Your task to perform on an android device: open app "Flipkart Online Shopping App" (install if not already installed), go to login, and select forgot password Image 0: 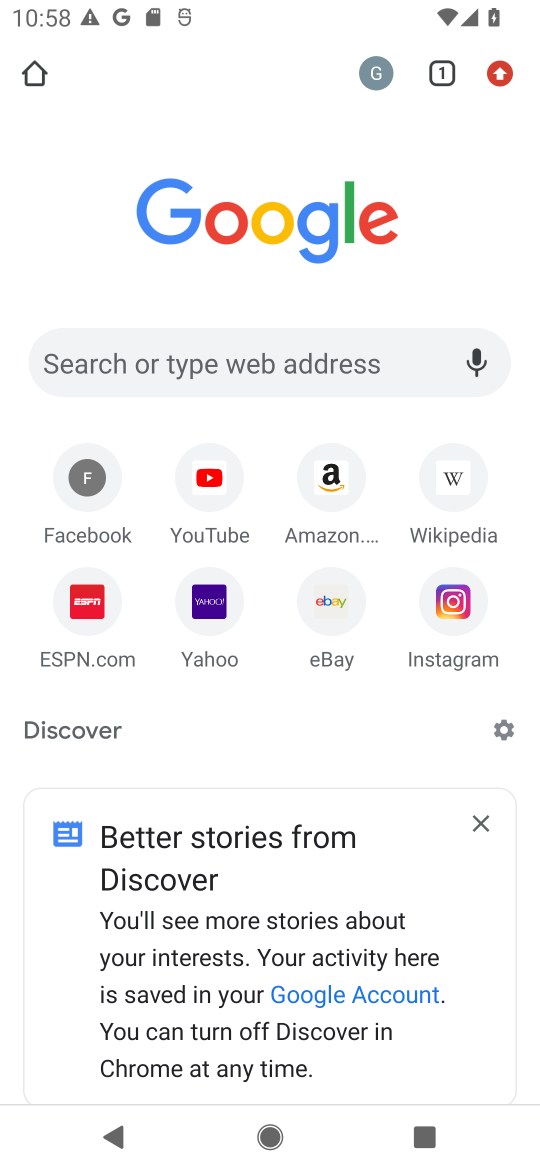
Step 0: press home button
Your task to perform on an android device: open app "Flipkart Online Shopping App" (install if not already installed), go to login, and select forgot password Image 1: 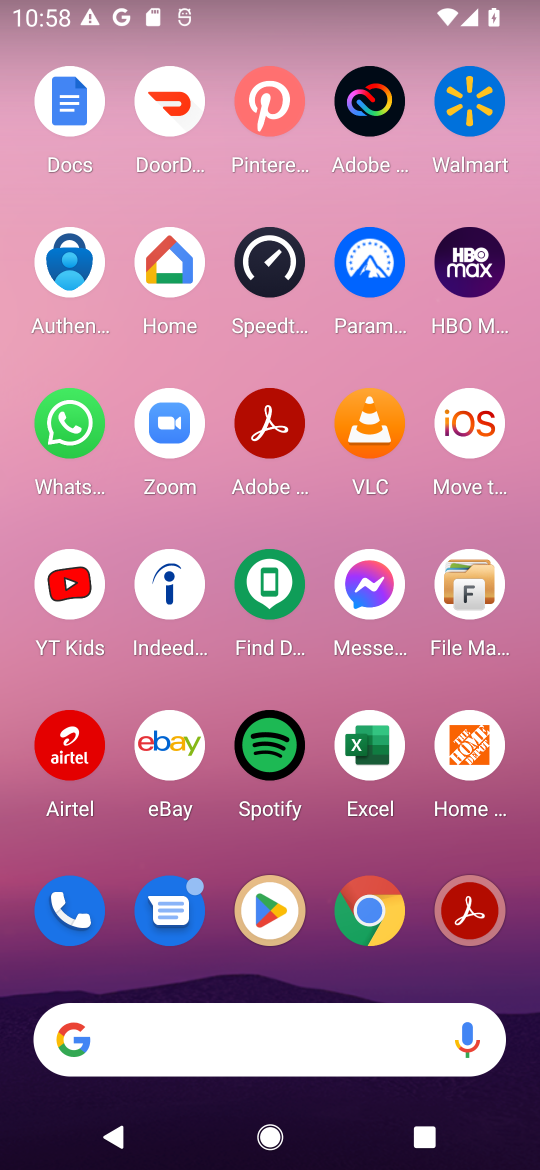
Step 1: click (264, 925)
Your task to perform on an android device: open app "Flipkart Online Shopping App" (install if not already installed), go to login, and select forgot password Image 2: 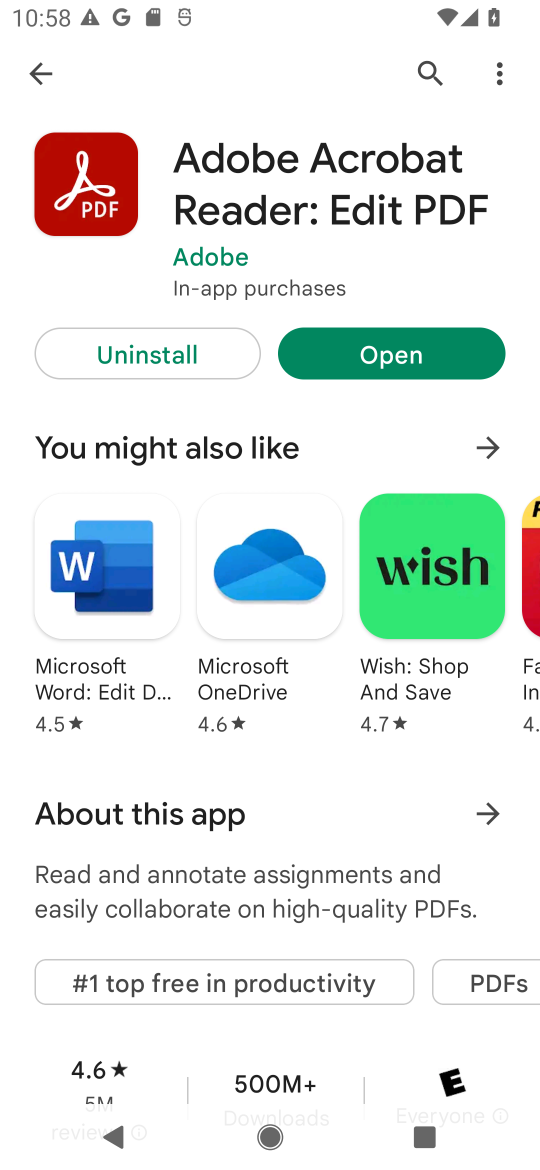
Step 2: click (415, 76)
Your task to perform on an android device: open app "Flipkart Online Shopping App" (install if not already installed), go to login, and select forgot password Image 3: 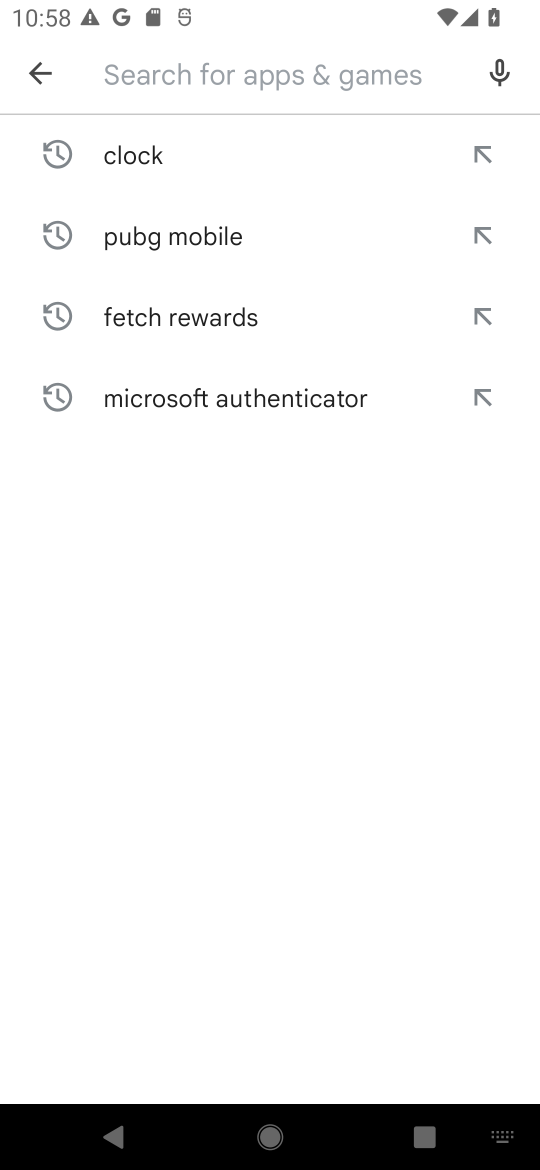
Step 3: type "Flipkart Online Shopping App"
Your task to perform on an android device: open app "Flipkart Online Shopping App" (install if not already installed), go to login, and select forgot password Image 4: 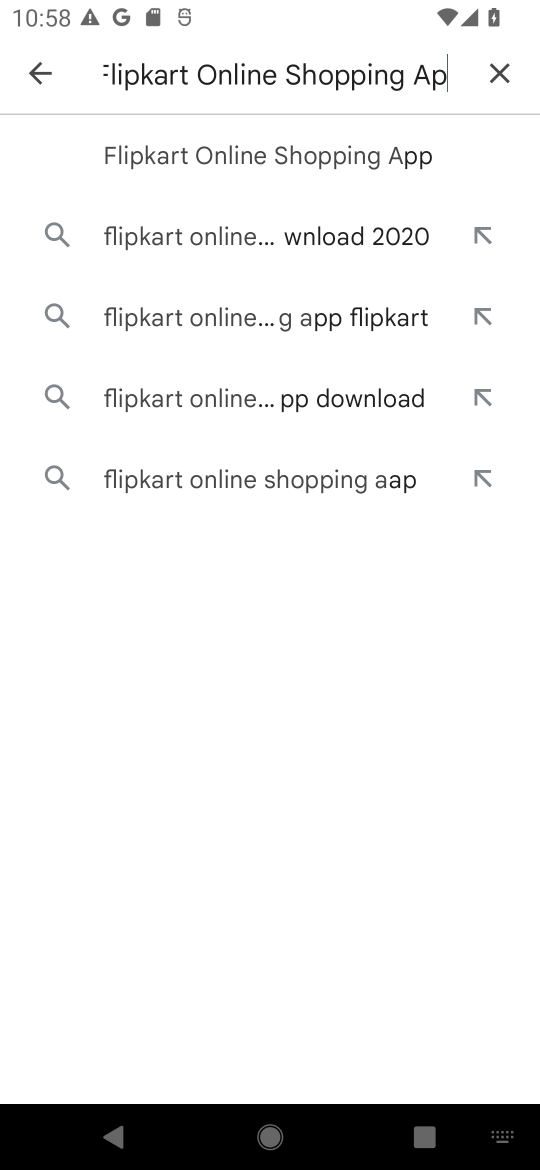
Step 4: type ""
Your task to perform on an android device: open app "Flipkart Online Shopping App" (install if not already installed), go to login, and select forgot password Image 5: 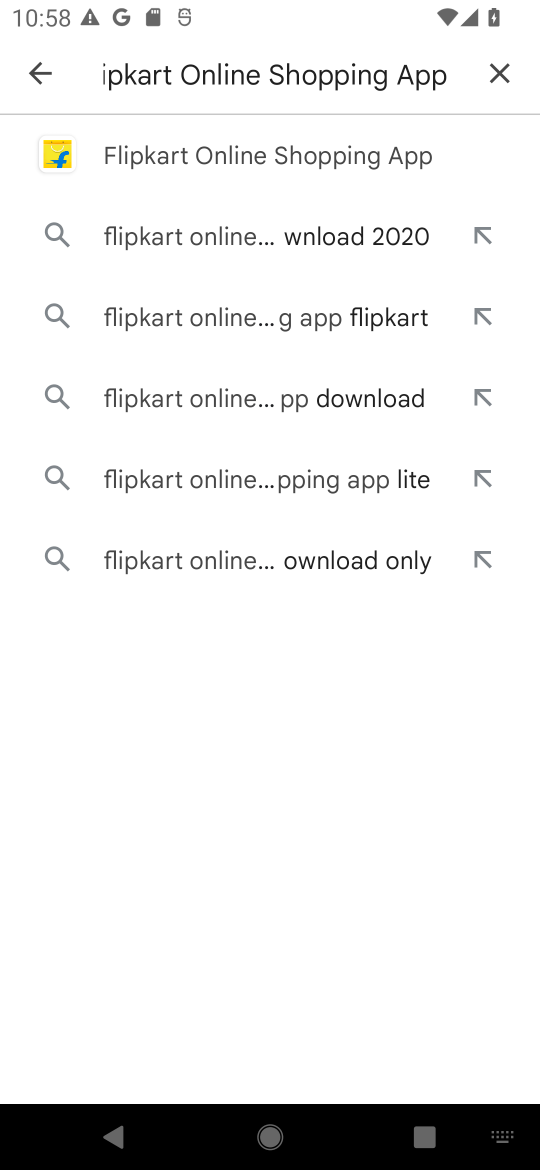
Step 5: click (202, 134)
Your task to perform on an android device: open app "Flipkart Online Shopping App" (install if not already installed), go to login, and select forgot password Image 6: 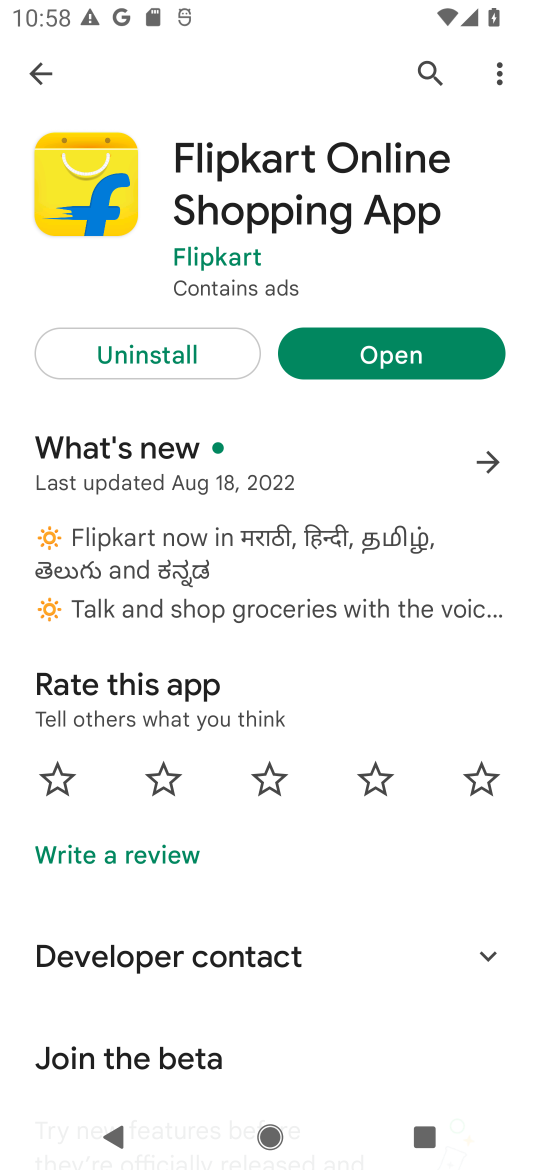
Step 6: click (393, 351)
Your task to perform on an android device: open app "Flipkart Online Shopping App" (install if not already installed), go to login, and select forgot password Image 7: 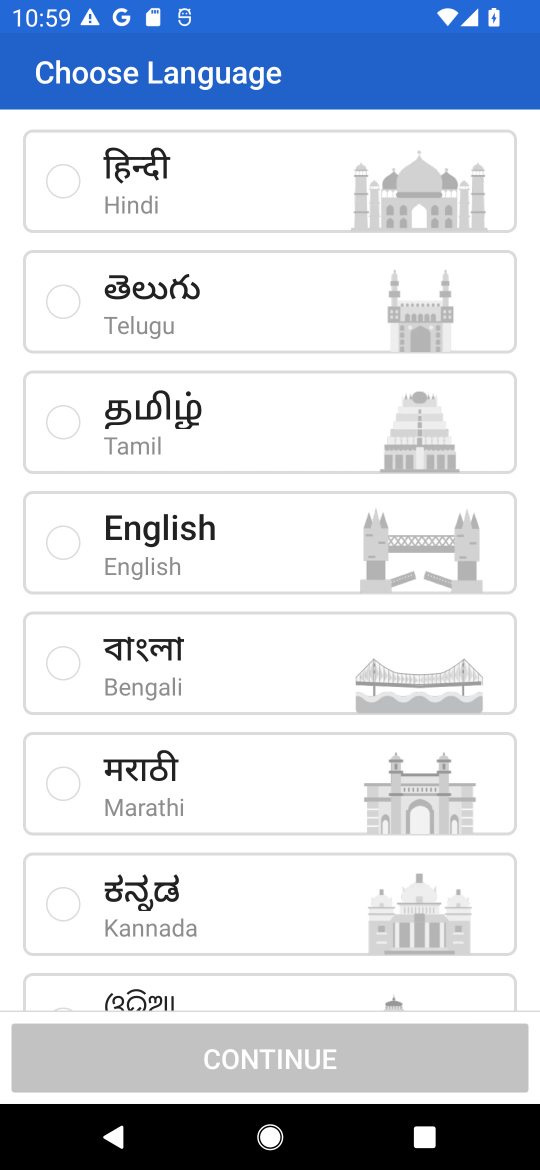
Step 7: task complete